Your task to perform on an android device: see creations saved in the google photos Image 0: 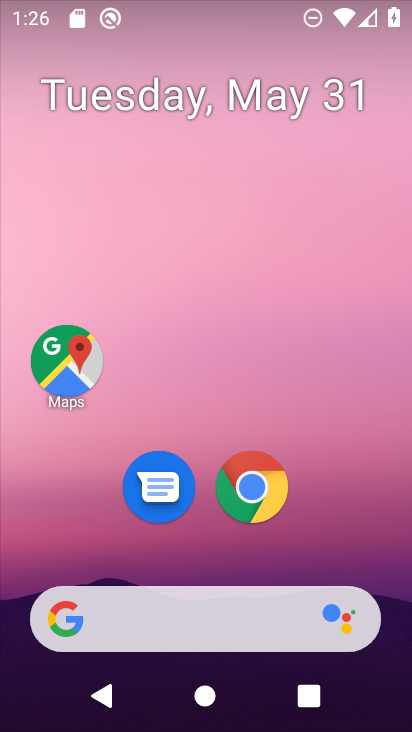
Step 0: drag from (106, 581) to (242, 69)
Your task to perform on an android device: see creations saved in the google photos Image 1: 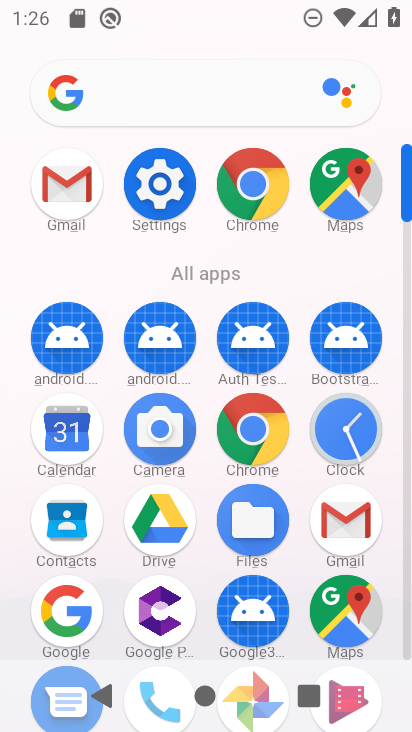
Step 1: drag from (218, 639) to (305, 273)
Your task to perform on an android device: see creations saved in the google photos Image 2: 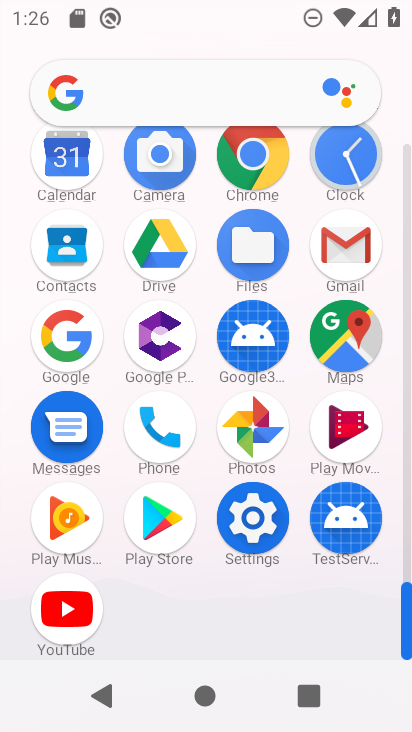
Step 2: click (254, 450)
Your task to perform on an android device: see creations saved in the google photos Image 3: 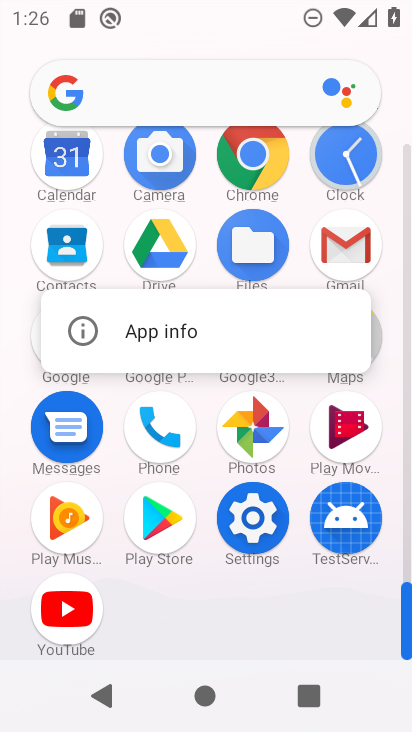
Step 3: click (262, 434)
Your task to perform on an android device: see creations saved in the google photos Image 4: 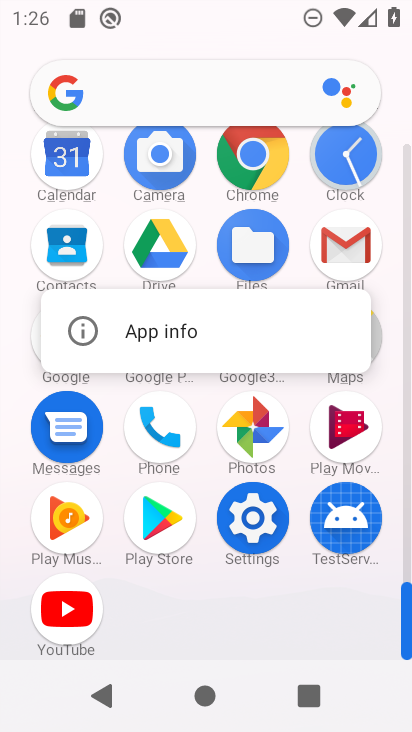
Step 4: click (262, 434)
Your task to perform on an android device: see creations saved in the google photos Image 5: 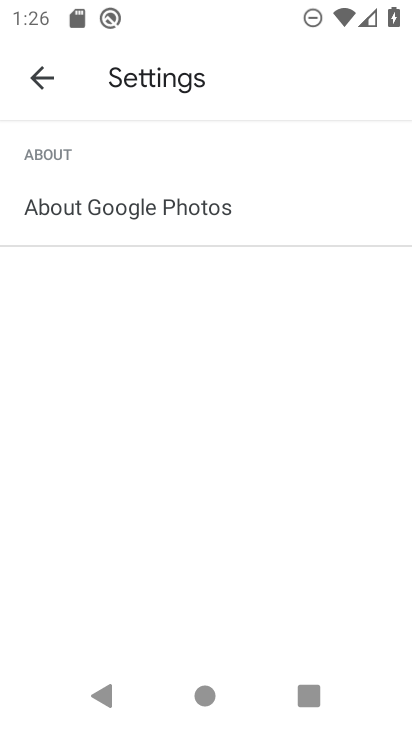
Step 5: click (49, 93)
Your task to perform on an android device: see creations saved in the google photos Image 6: 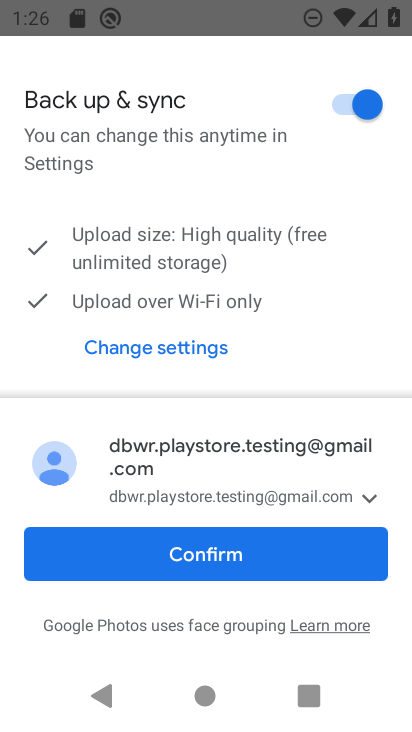
Step 6: click (242, 558)
Your task to perform on an android device: see creations saved in the google photos Image 7: 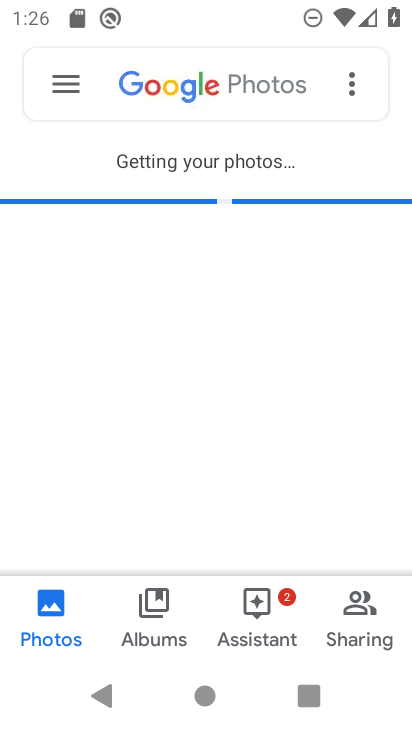
Step 7: click (258, 73)
Your task to perform on an android device: see creations saved in the google photos Image 8: 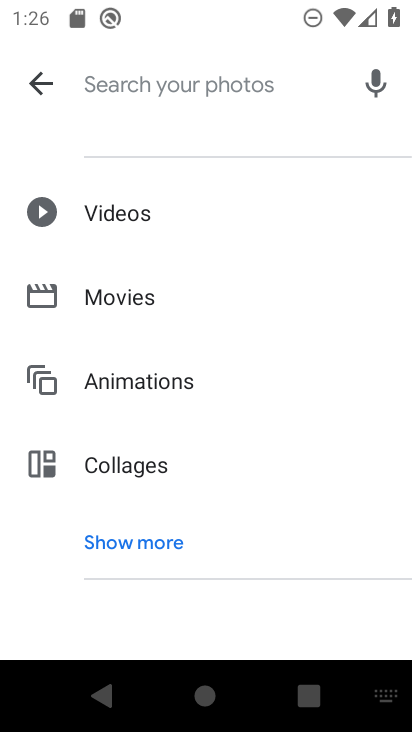
Step 8: click (136, 542)
Your task to perform on an android device: see creations saved in the google photos Image 9: 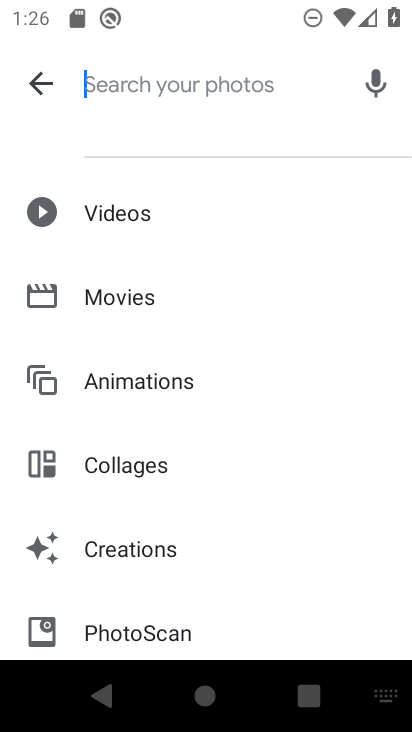
Step 9: drag from (134, 597) to (206, 371)
Your task to perform on an android device: see creations saved in the google photos Image 10: 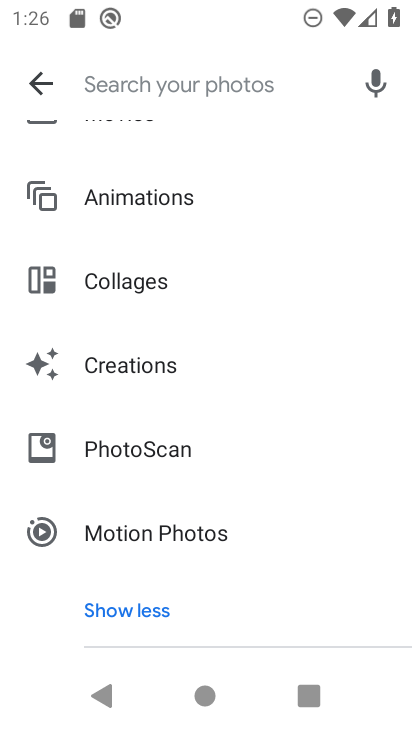
Step 10: click (177, 385)
Your task to perform on an android device: see creations saved in the google photos Image 11: 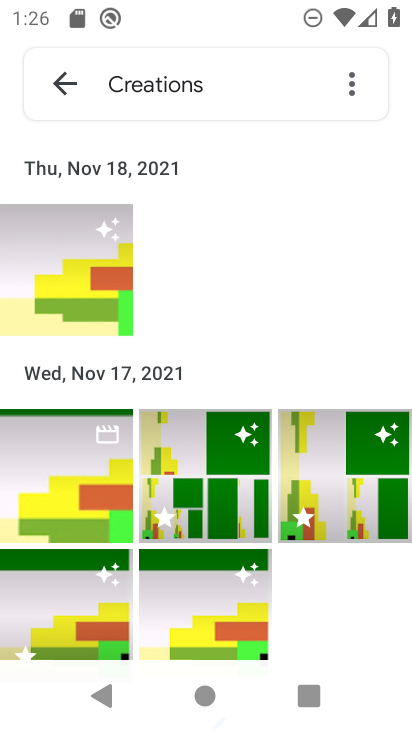
Step 11: task complete